Your task to perform on an android device: Search for pizza restaurants on Maps Image 0: 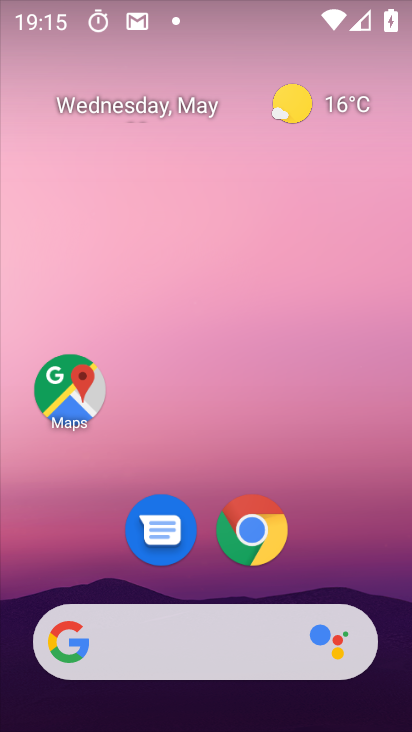
Step 0: click (76, 385)
Your task to perform on an android device: Search for pizza restaurants on Maps Image 1: 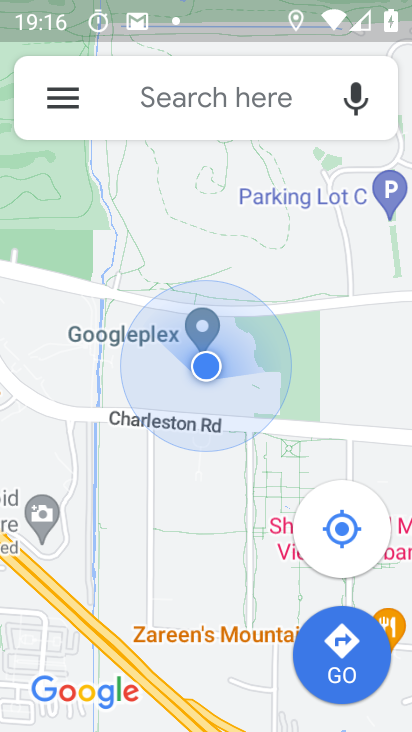
Step 1: click (200, 88)
Your task to perform on an android device: Search for pizza restaurants on Maps Image 2: 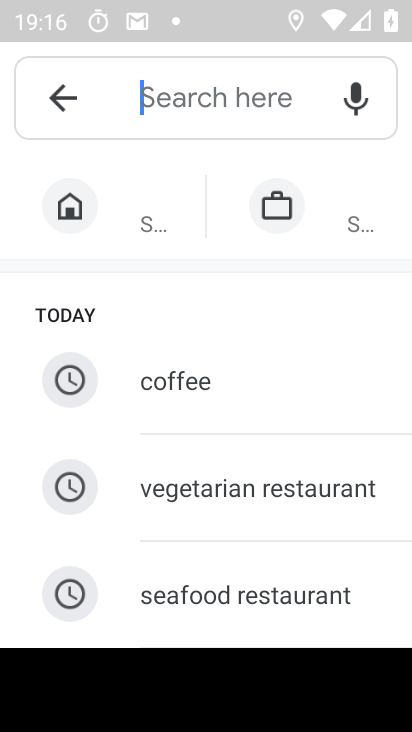
Step 2: type " pizza restaurants "
Your task to perform on an android device: Search for pizza restaurants on Maps Image 3: 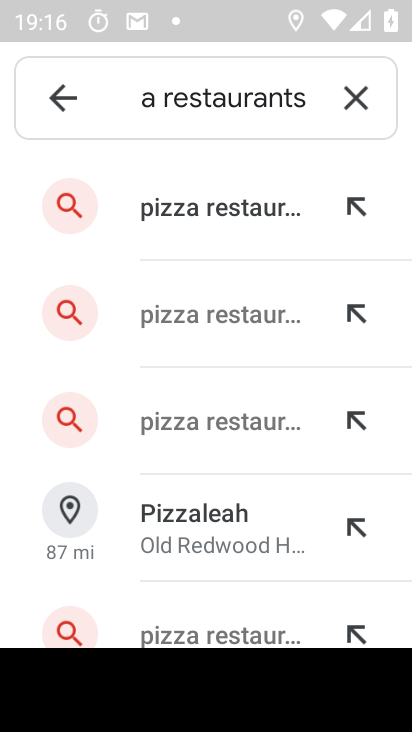
Step 3: click (153, 207)
Your task to perform on an android device: Search for pizza restaurants on Maps Image 4: 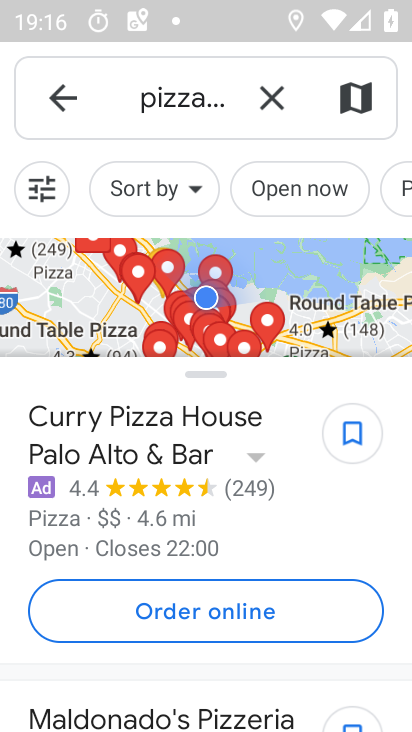
Step 4: task complete